Your task to perform on an android device: toggle priority inbox in the gmail app Image 0: 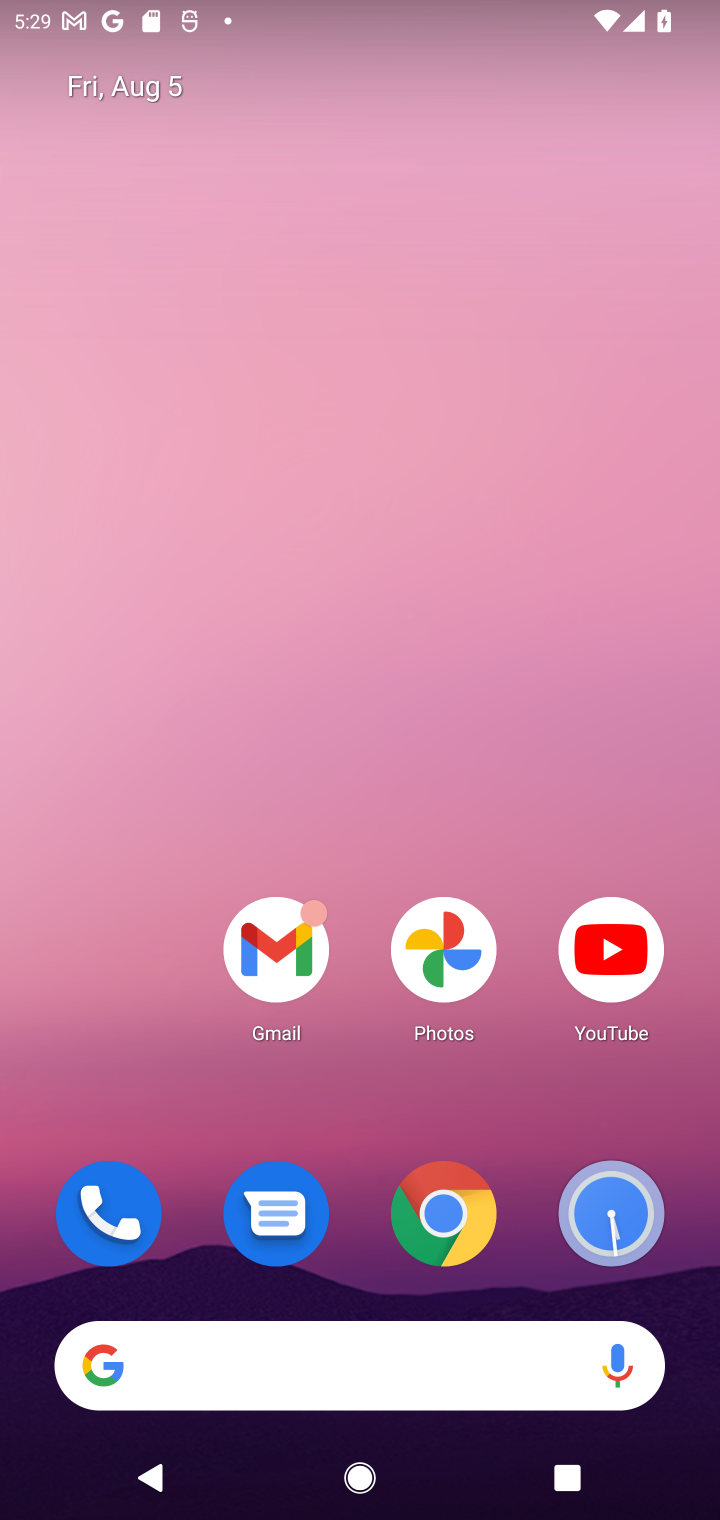
Step 0: click (273, 969)
Your task to perform on an android device: toggle priority inbox in the gmail app Image 1: 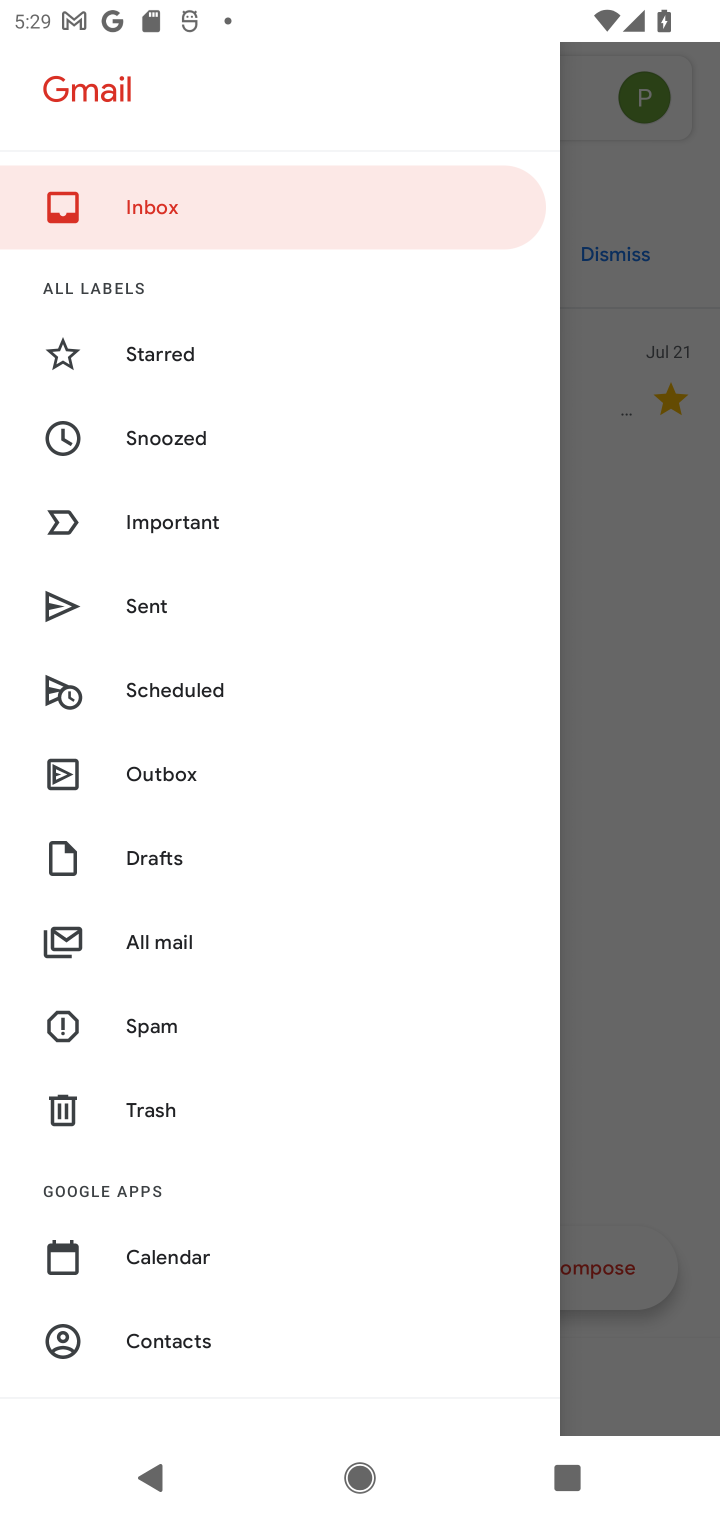
Step 1: drag from (195, 1335) to (195, 506)
Your task to perform on an android device: toggle priority inbox in the gmail app Image 2: 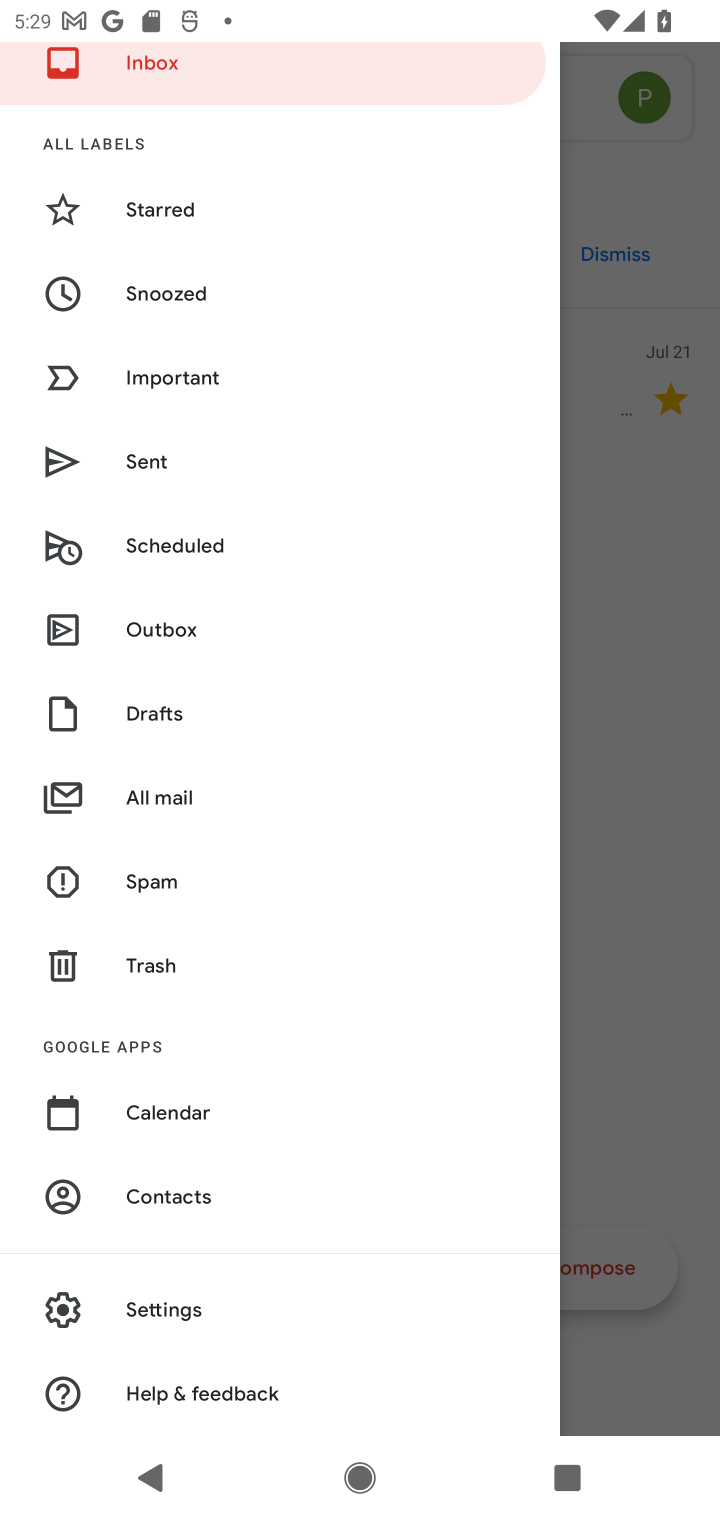
Step 2: click (206, 1278)
Your task to perform on an android device: toggle priority inbox in the gmail app Image 3: 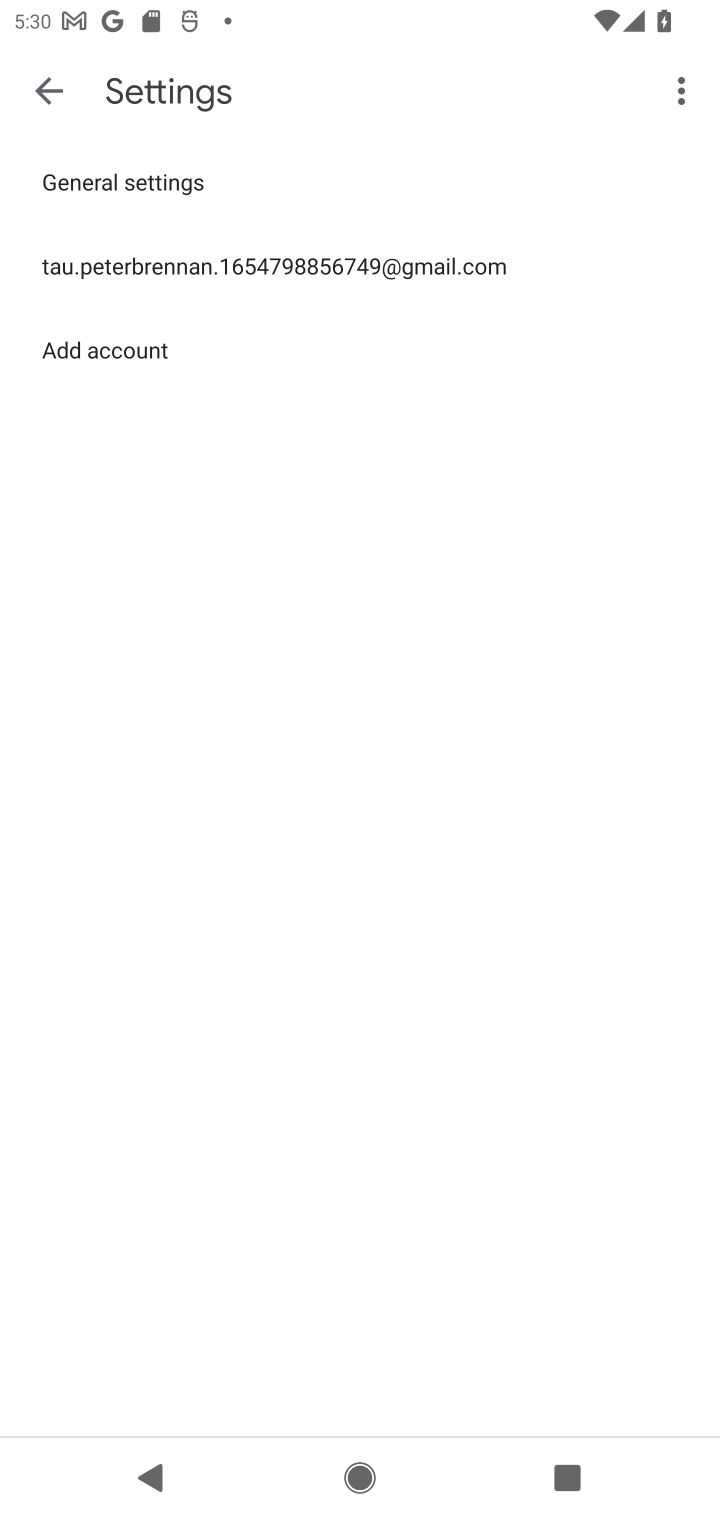
Step 3: task complete